Your task to perform on an android device: Search for Italian restaurants on Maps Image 0: 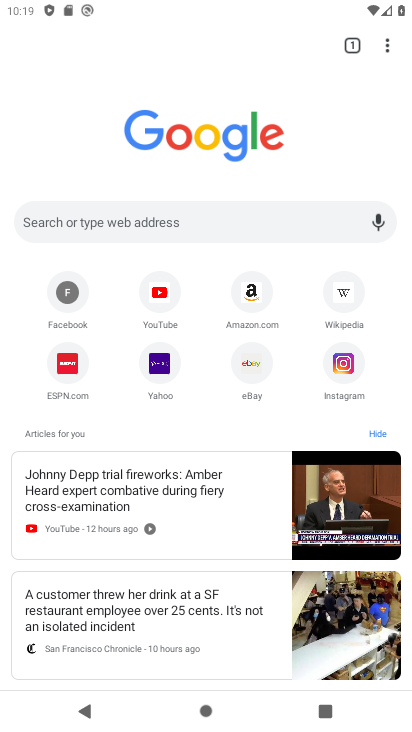
Step 0: press home button
Your task to perform on an android device: Search for Italian restaurants on Maps Image 1: 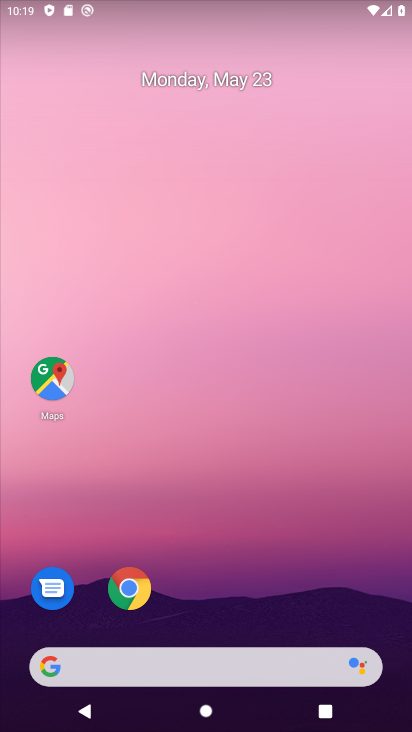
Step 1: click (55, 385)
Your task to perform on an android device: Search for Italian restaurants on Maps Image 2: 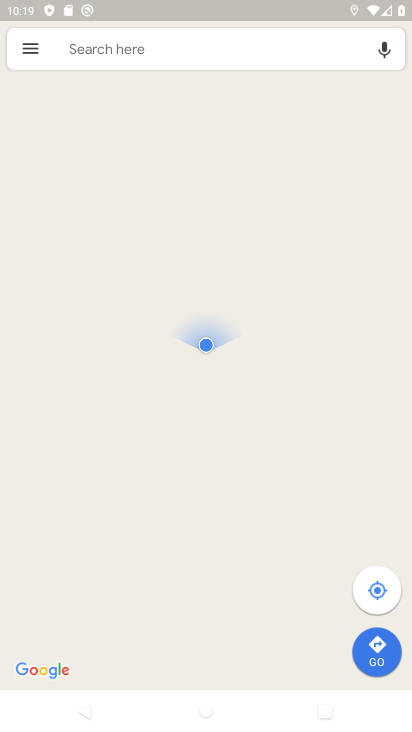
Step 2: click (214, 57)
Your task to perform on an android device: Search for Italian restaurants on Maps Image 3: 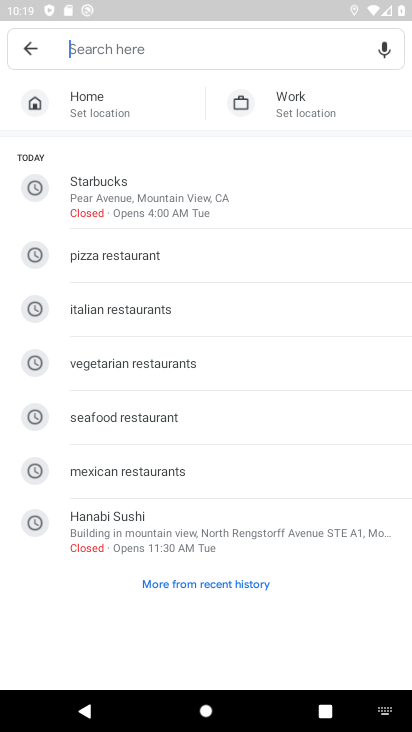
Step 3: type "Italia "
Your task to perform on an android device: Search for Italian restaurants on Maps Image 4: 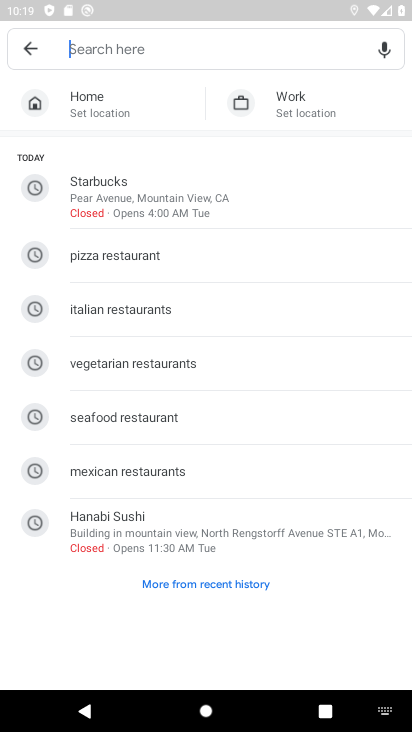
Step 4: click (173, 308)
Your task to perform on an android device: Search for Italian restaurants on Maps Image 5: 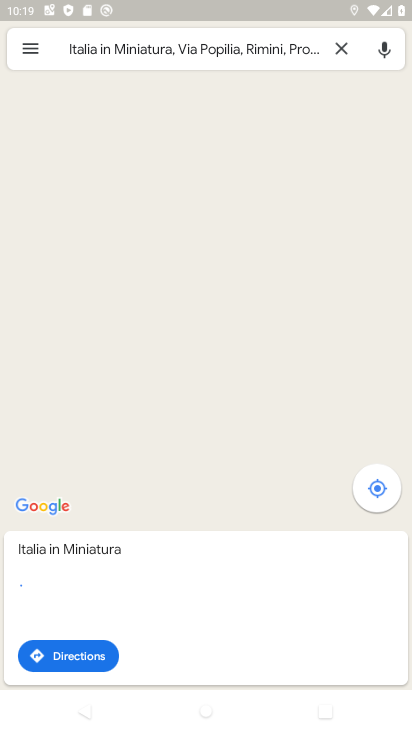
Step 5: click (244, 53)
Your task to perform on an android device: Search for Italian restaurants on Maps Image 6: 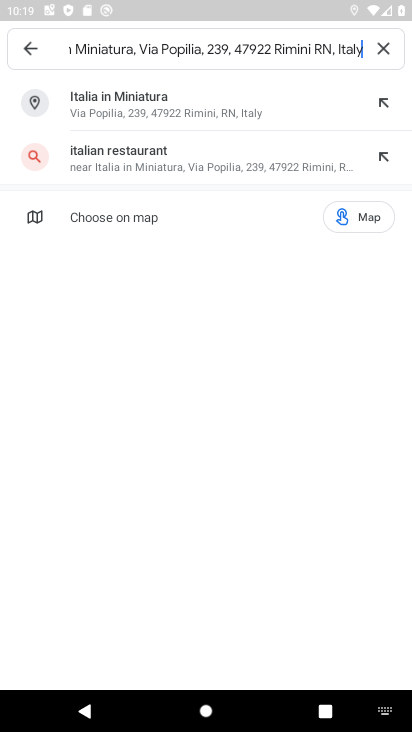
Step 6: click (384, 43)
Your task to perform on an android device: Search for Italian restaurants on Maps Image 7: 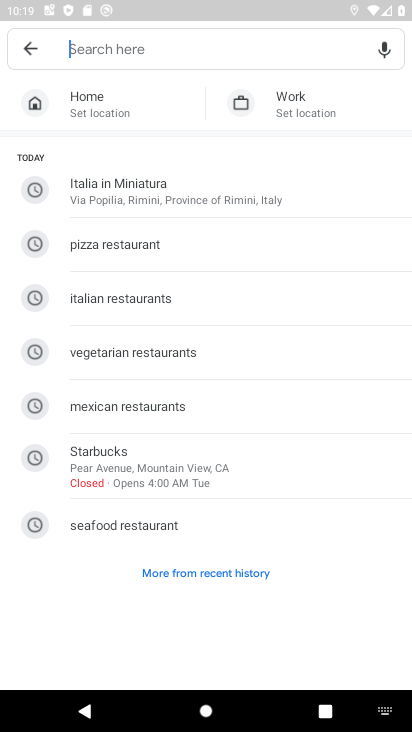
Step 7: click (184, 296)
Your task to perform on an android device: Search for Italian restaurants on Maps Image 8: 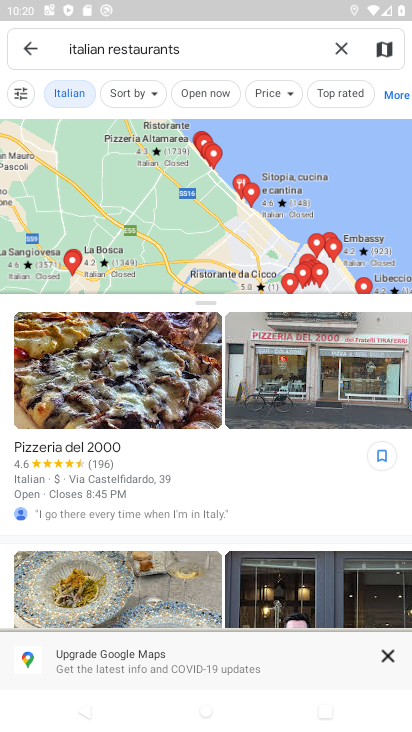
Step 8: task complete